Your task to perform on an android device: choose inbox layout in the gmail app Image 0: 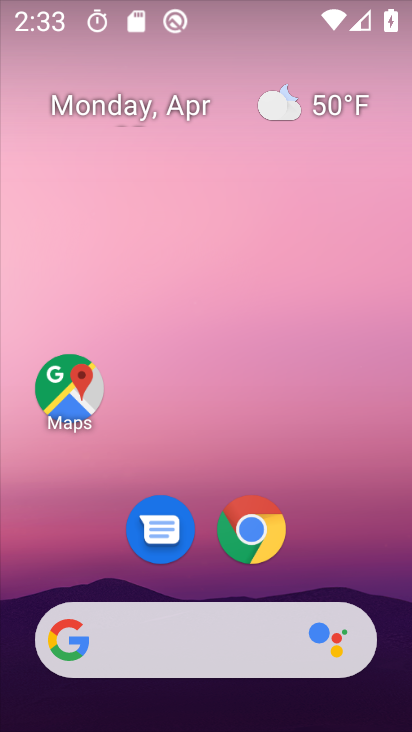
Step 0: drag from (390, 623) to (339, 199)
Your task to perform on an android device: choose inbox layout in the gmail app Image 1: 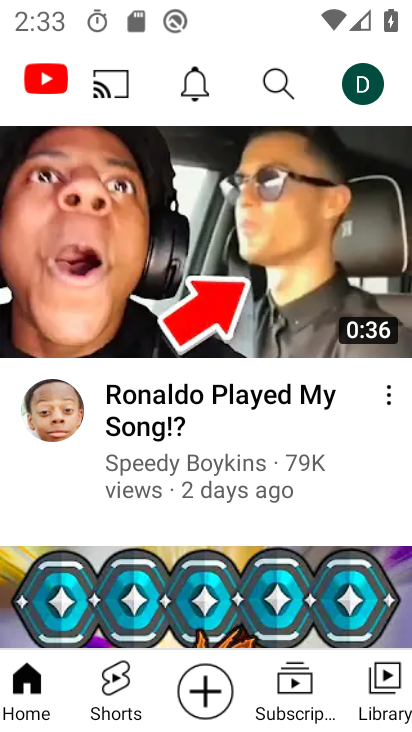
Step 1: press home button
Your task to perform on an android device: choose inbox layout in the gmail app Image 2: 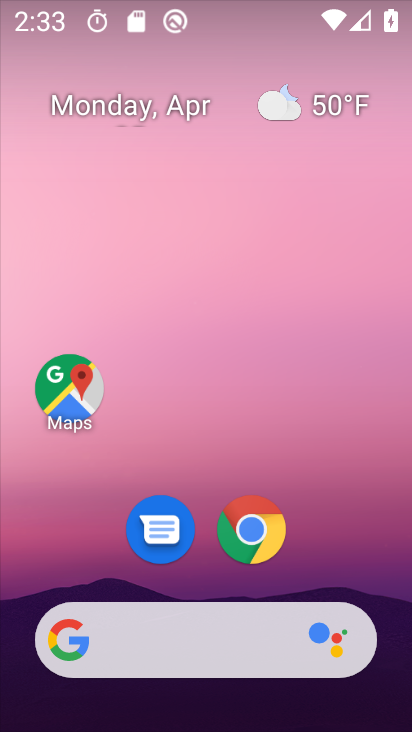
Step 2: drag from (382, 613) to (358, 213)
Your task to perform on an android device: choose inbox layout in the gmail app Image 3: 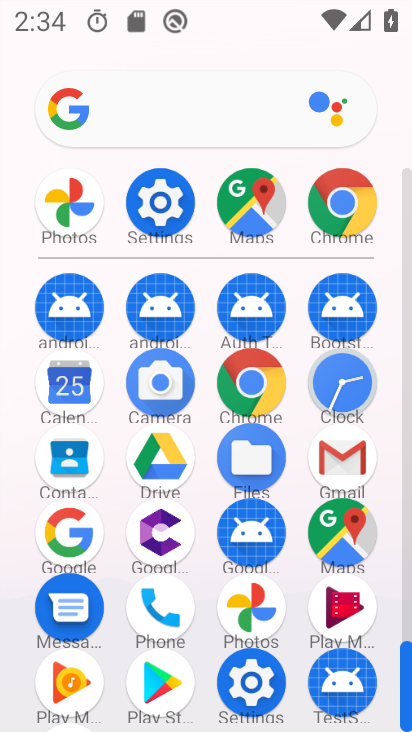
Step 3: click (352, 460)
Your task to perform on an android device: choose inbox layout in the gmail app Image 4: 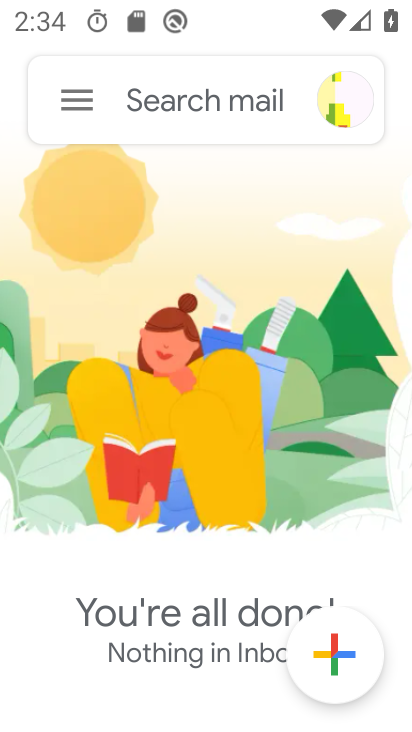
Step 4: click (75, 97)
Your task to perform on an android device: choose inbox layout in the gmail app Image 5: 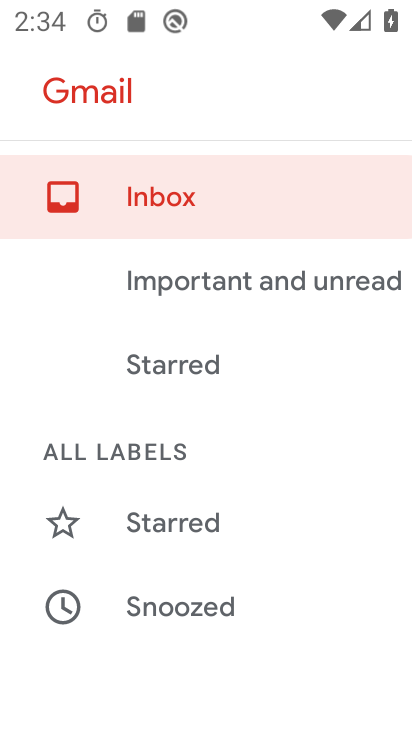
Step 5: click (134, 198)
Your task to perform on an android device: choose inbox layout in the gmail app Image 6: 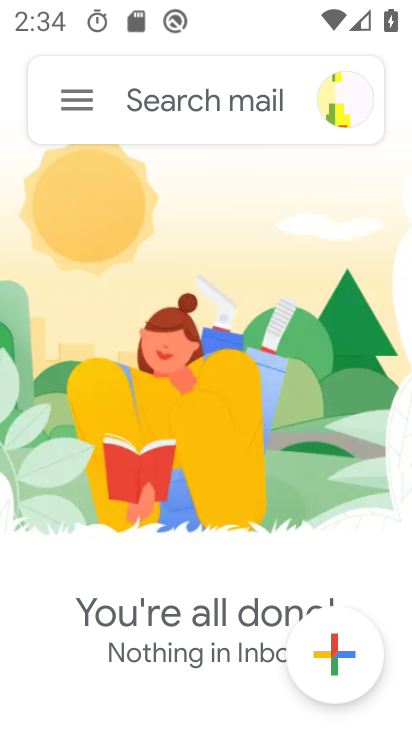
Step 6: task complete